Your task to perform on an android device: Open network settings Image 0: 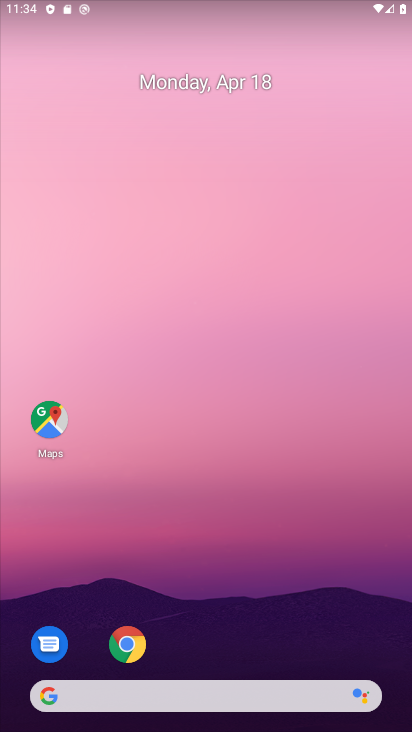
Step 0: drag from (207, 560) to (272, 46)
Your task to perform on an android device: Open network settings Image 1: 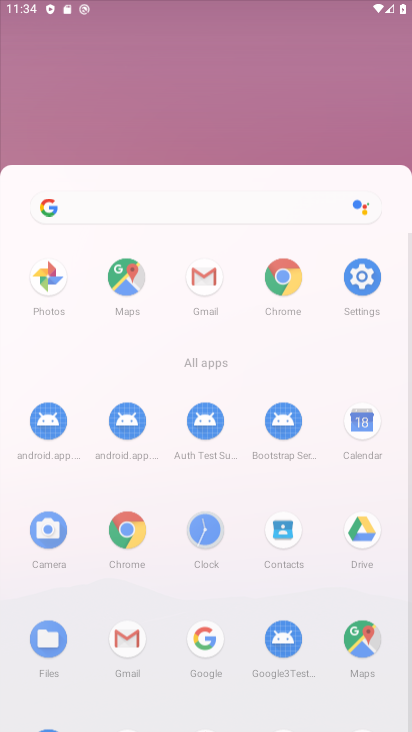
Step 1: click (271, 39)
Your task to perform on an android device: Open network settings Image 2: 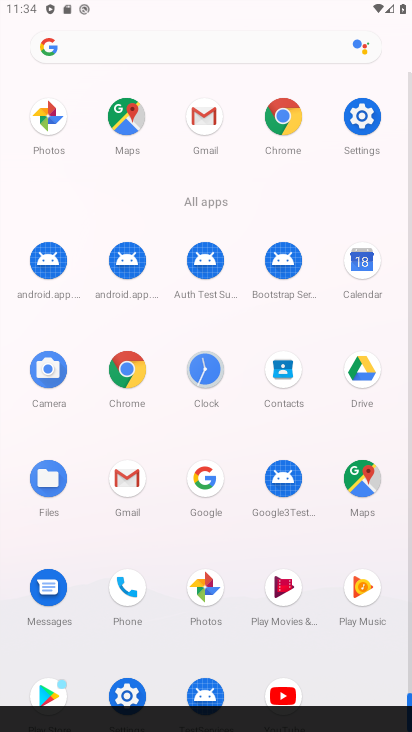
Step 2: click (132, 693)
Your task to perform on an android device: Open network settings Image 3: 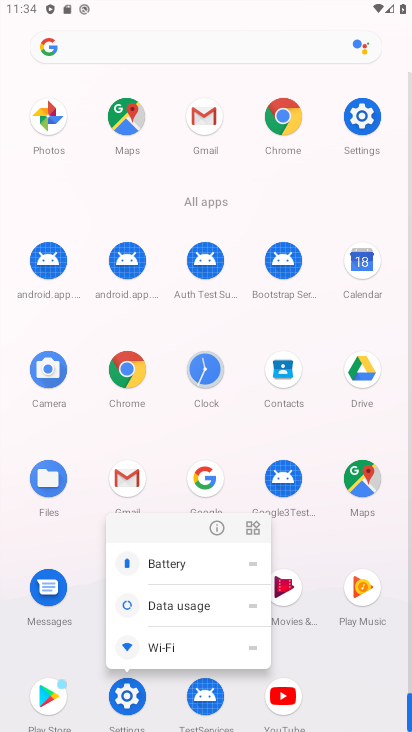
Step 3: click (129, 688)
Your task to perform on an android device: Open network settings Image 4: 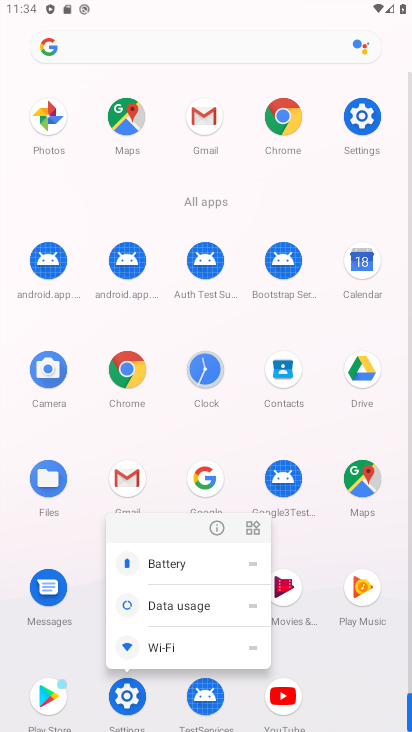
Step 4: click (119, 697)
Your task to perform on an android device: Open network settings Image 5: 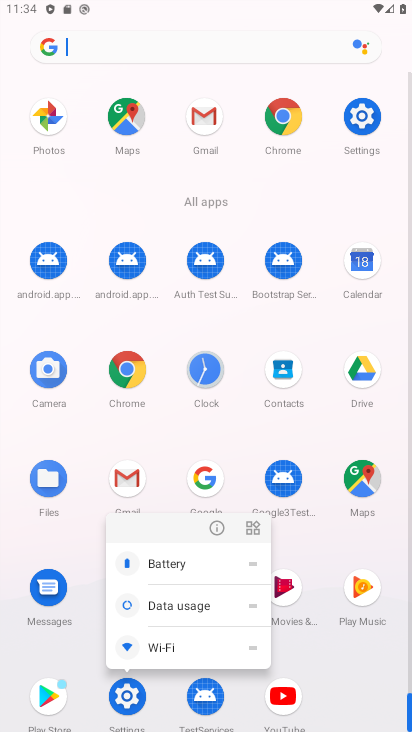
Step 5: click (131, 702)
Your task to perform on an android device: Open network settings Image 6: 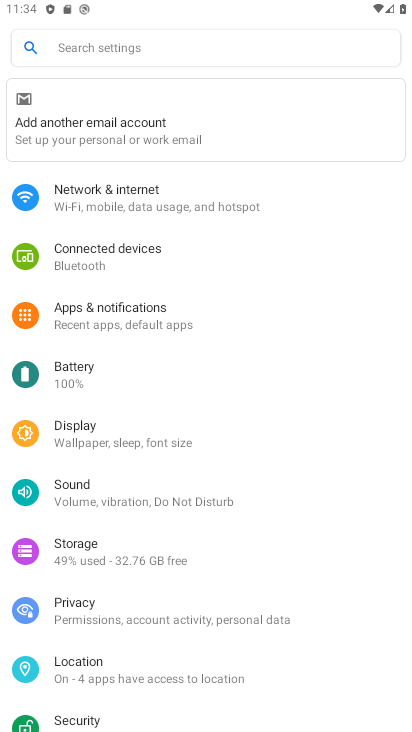
Step 6: click (181, 209)
Your task to perform on an android device: Open network settings Image 7: 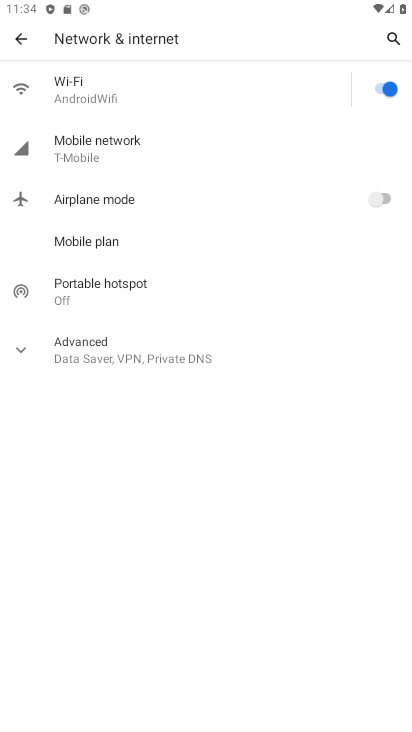
Step 7: click (175, 163)
Your task to perform on an android device: Open network settings Image 8: 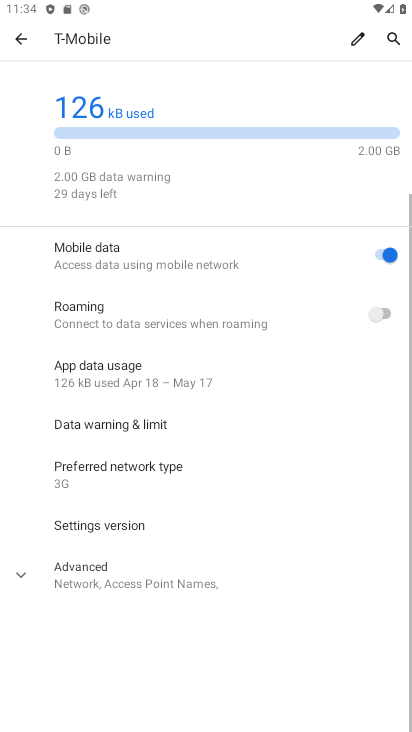
Step 8: click (175, 163)
Your task to perform on an android device: Open network settings Image 9: 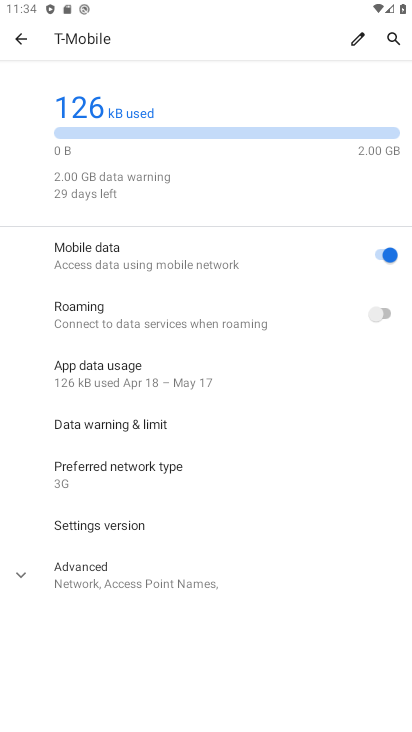
Step 9: task complete